Your task to perform on an android device: Open Wikipedia Image 0: 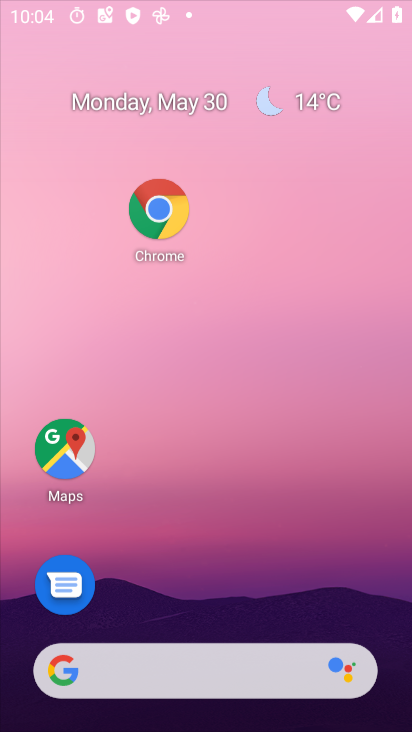
Step 0: drag from (205, 379) to (213, 119)
Your task to perform on an android device: Open Wikipedia Image 1: 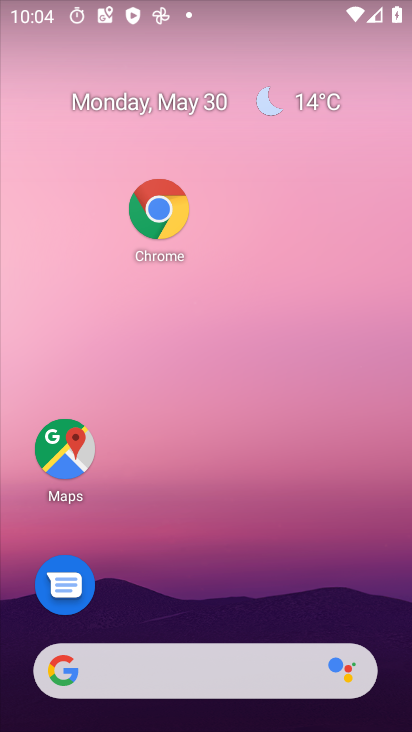
Step 1: drag from (219, 610) to (229, 86)
Your task to perform on an android device: Open Wikipedia Image 2: 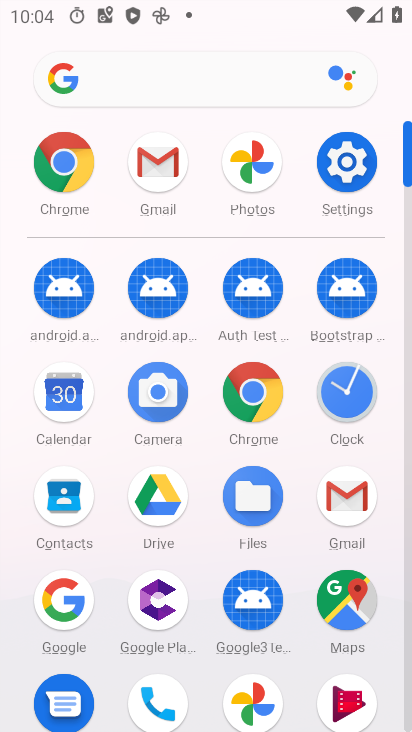
Step 2: click (178, 81)
Your task to perform on an android device: Open Wikipedia Image 3: 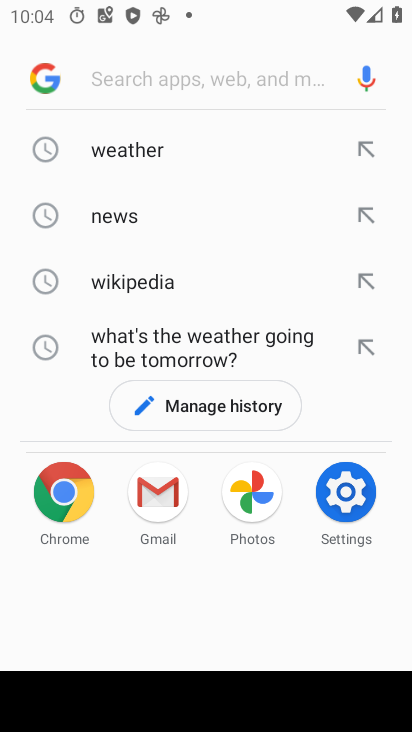
Step 3: click (118, 277)
Your task to perform on an android device: Open Wikipedia Image 4: 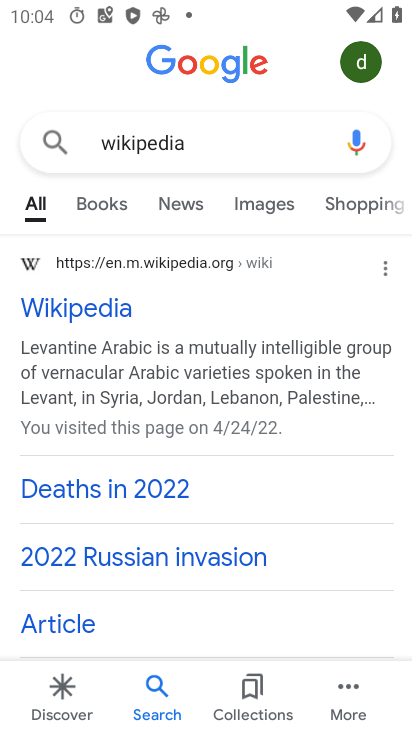
Step 4: click (78, 312)
Your task to perform on an android device: Open Wikipedia Image 5: 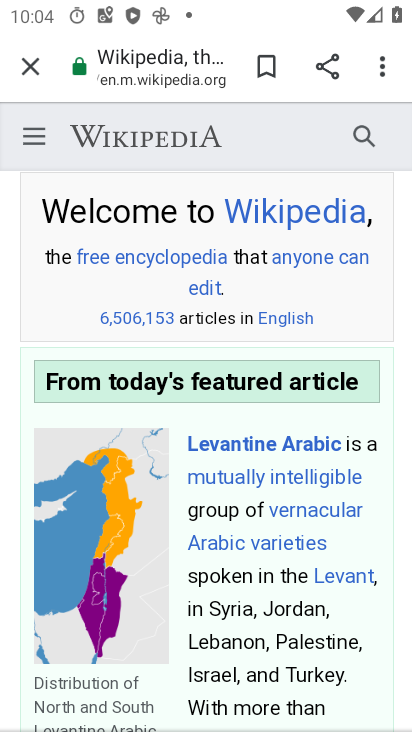
Step 5: task complete